Your task to perform on an android device: check storage Image 0: 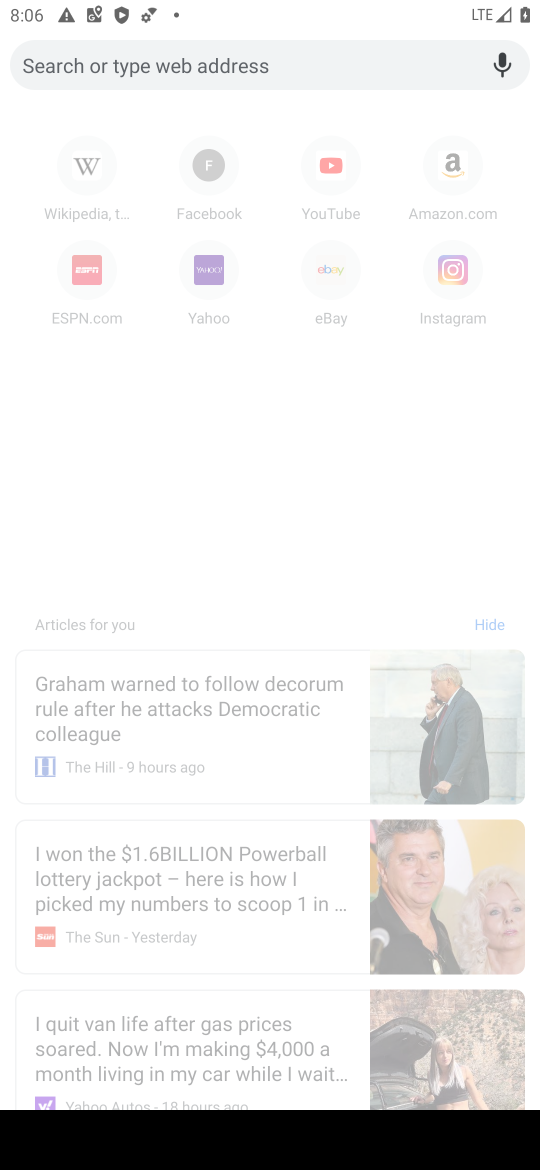
Step 0: press home button
Your task to perform on an android device: check storage Image 1: 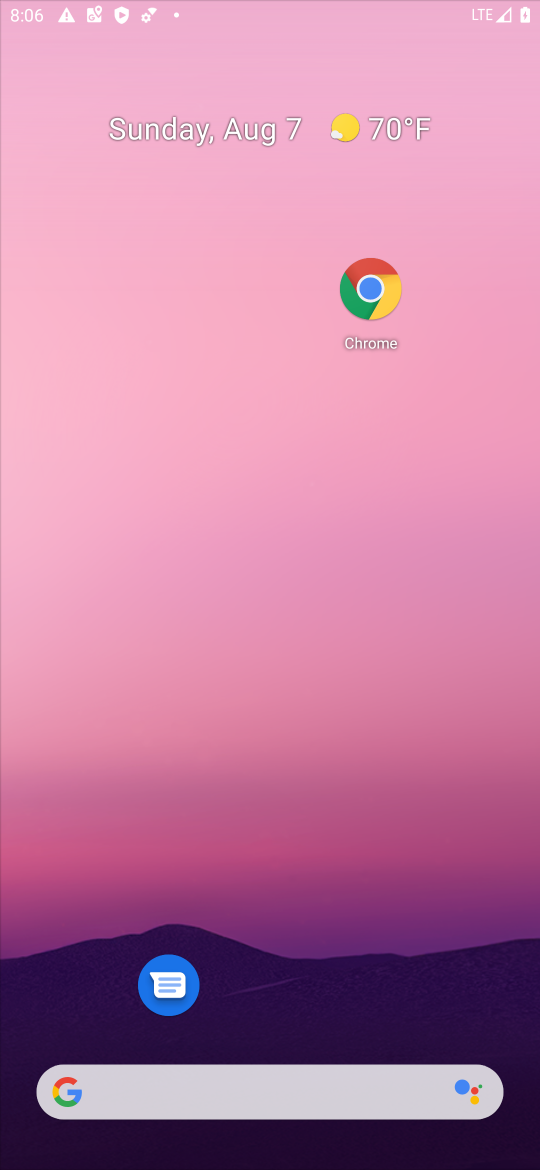
Step 1: drag from (157, 1065) to (256, 226)
Your task to perform on an android device: check storage Image 2: 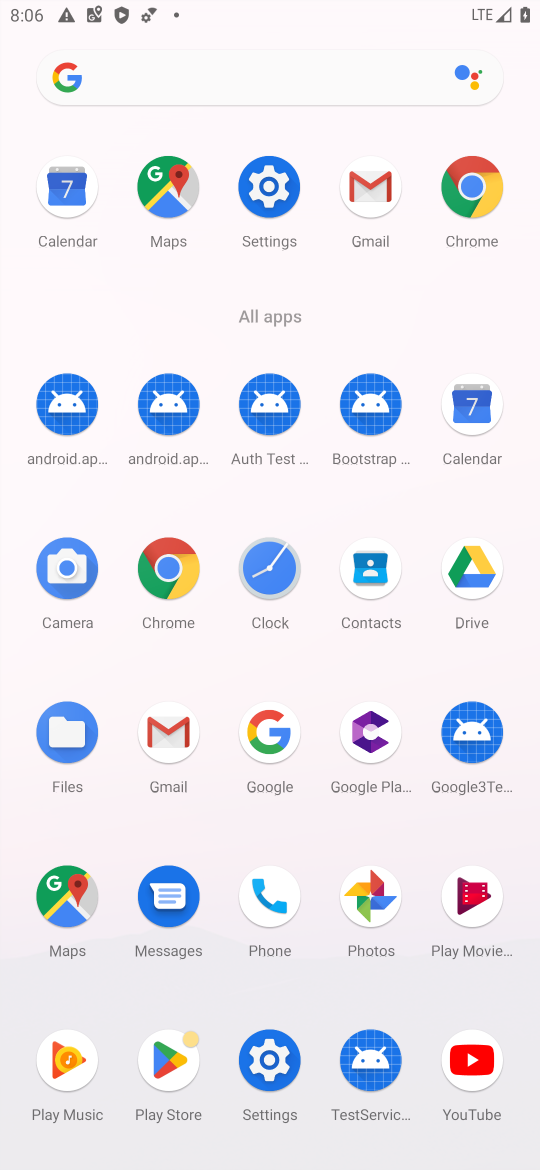
Step 2: click (261, 1082)
Your task to perform on an android device: check storage Image 3: 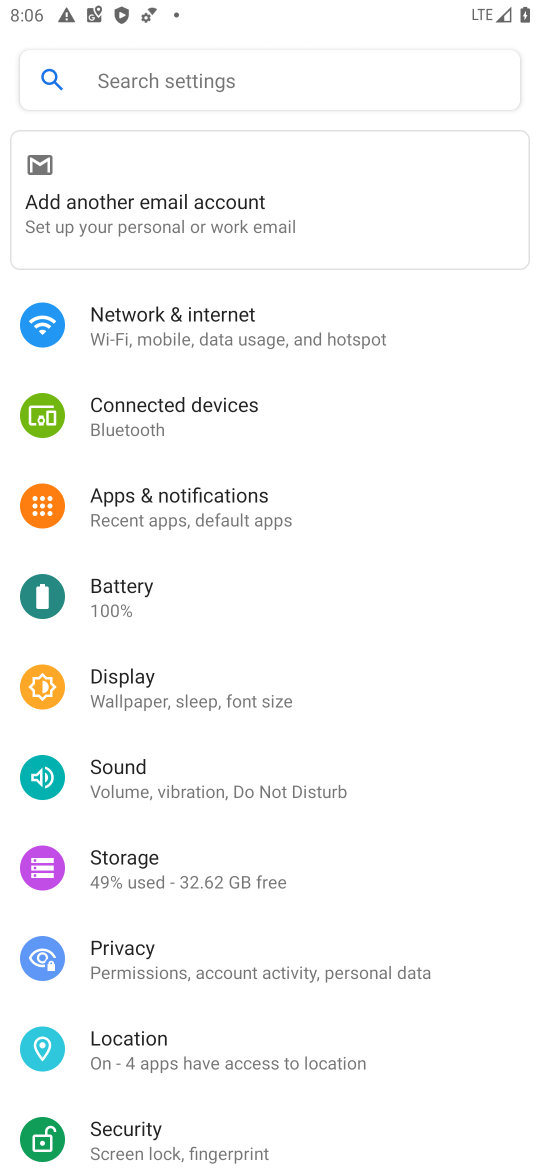
Step 3: click (225, 877)
Your task to perform on an android device: check storage Image 4: 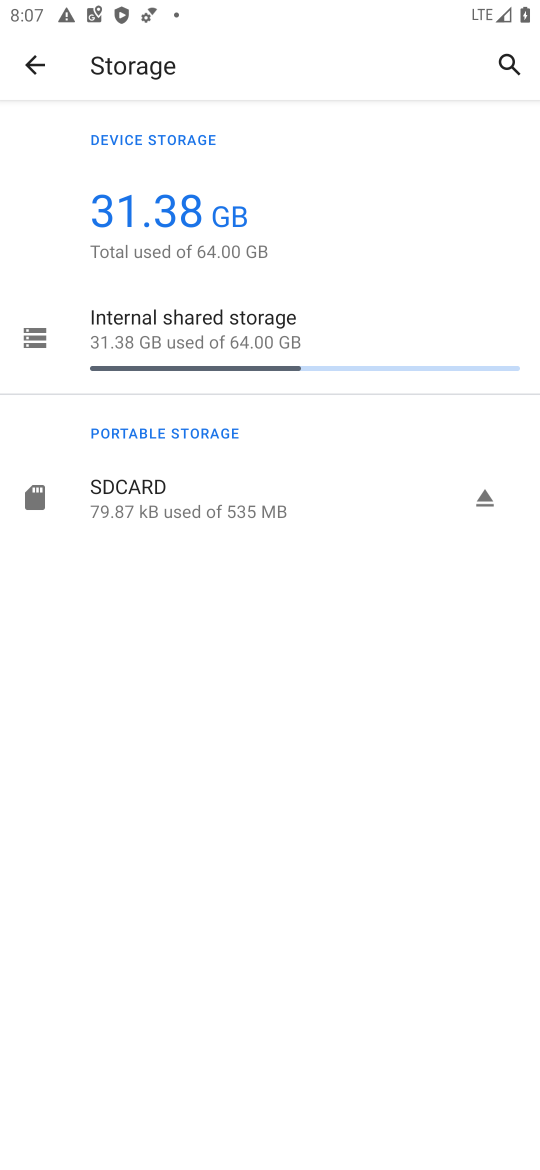
Step 4: task complete